Your task to perform on an android device: turn on the 12-hour format for clock Image 0: 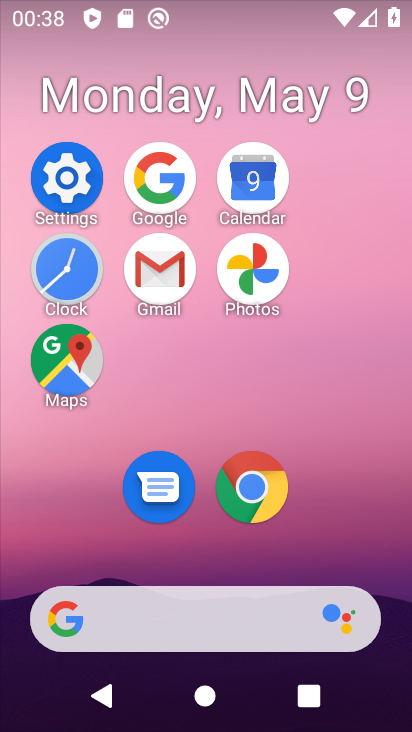
Step 0: click (84, 284)
Your task to perform on an android device: turn on the 12-hour format for clock Image 1: 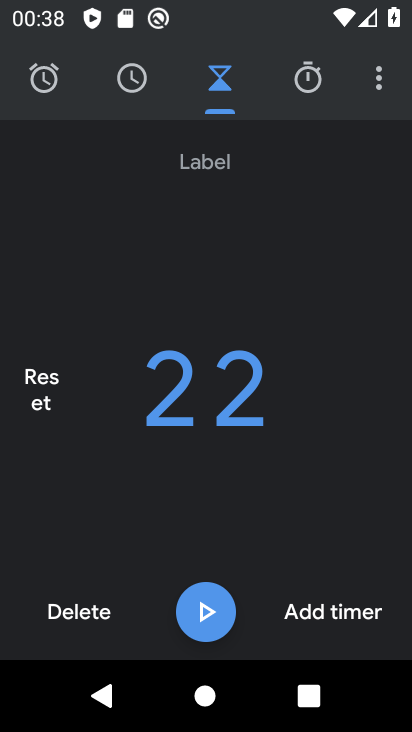
Step 1: click (376, 73)
Your task to perform on an android device: turn on the 12-hour format for clock Image 2: 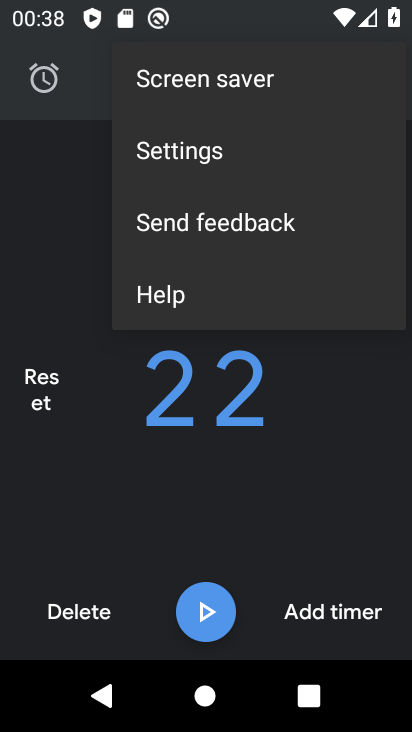
Step 2: click (259, 167)
Your task to perform on an android device: turn on the 12-hour format for clock Image 3: 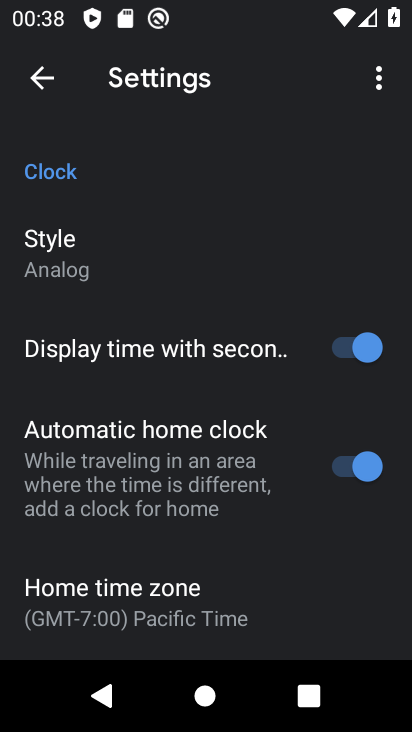
Step 3: drag from (253, 583) to (294, 215)
Your task to perform on an android device: turn on the 12-hour format for clock Image 4: 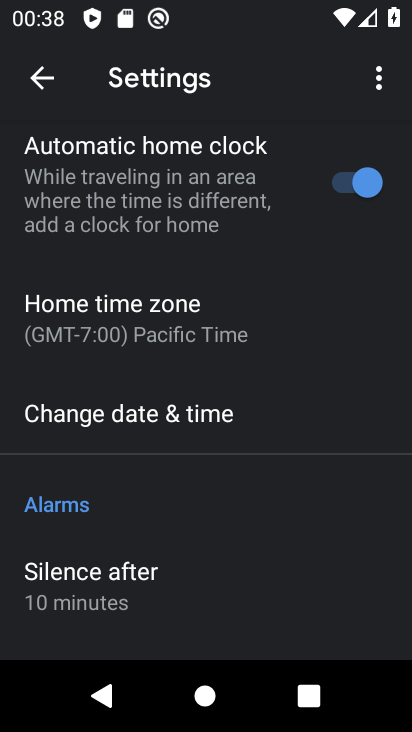
Step 4: click (234, 434)
Your task to perform on an android device: turn on the 12-hour format for clock Image 5: 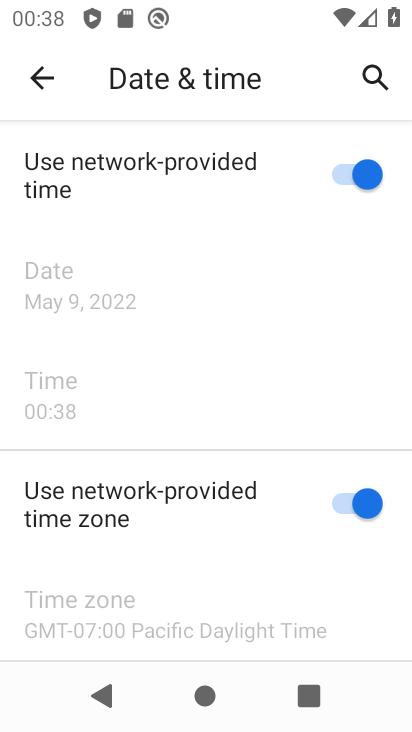
Step 5: drag from (273, 556) to (339, 197)
Your task to perform on an android device: turn on the 12-hour format for clock Image 6: 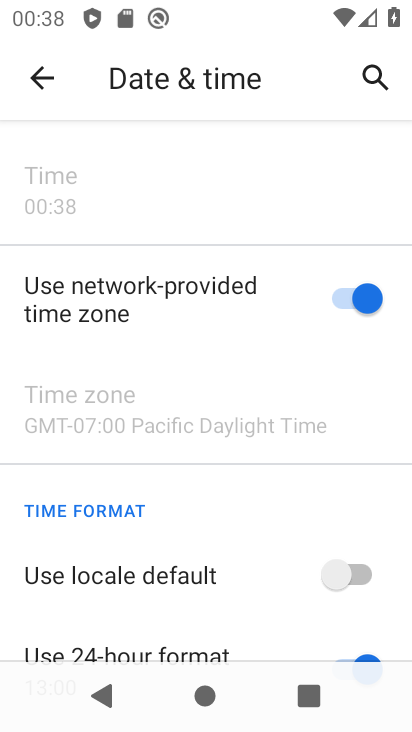
Step 6: drag from (217, 603) to (196, 240)
Your task to perform on an android device: turn on the 12-hour format for clock Image 7: 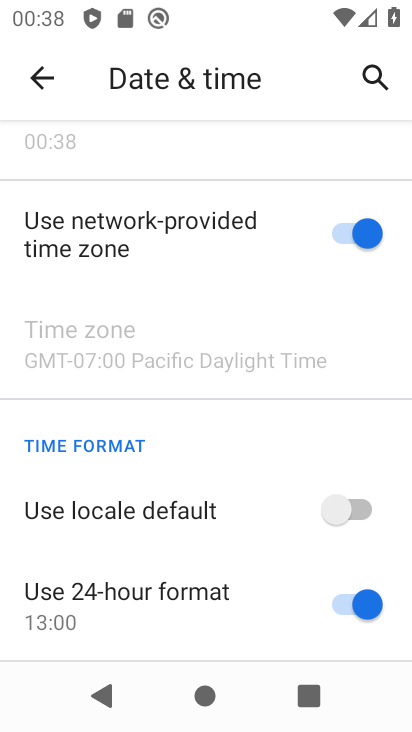
Step 7: click (344, 504)
Your task to perform on an android device: turn on the 12-hour format for clock Image 8: 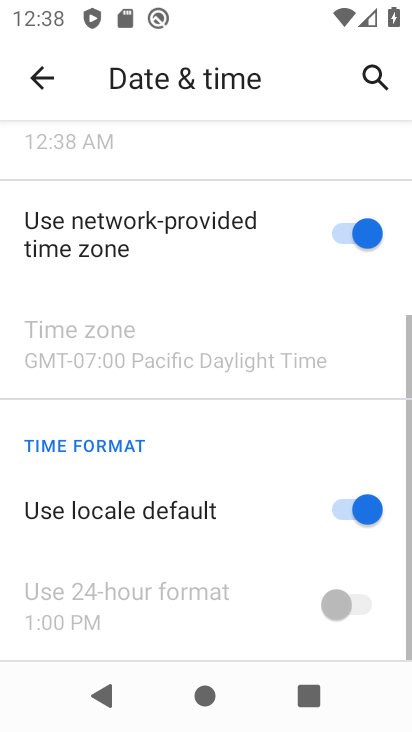
Step 8: click (373, 609)
Your task to perform on an android device: turn on the 12-hour format for clock Image 9: 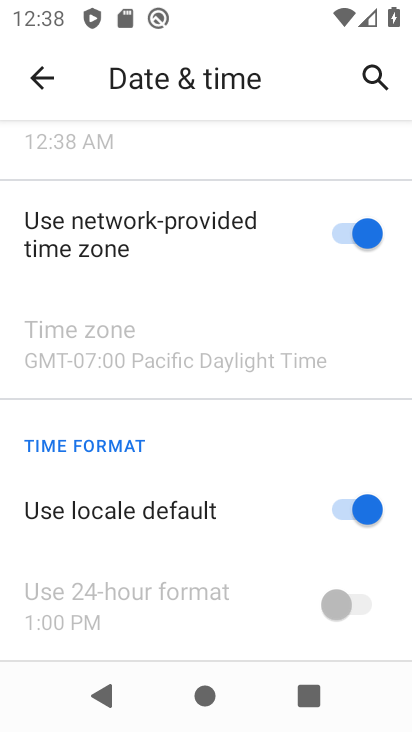
Step 9: task complete